Your task to perform on an android device: Do I have any events tomorrow? Image 0: 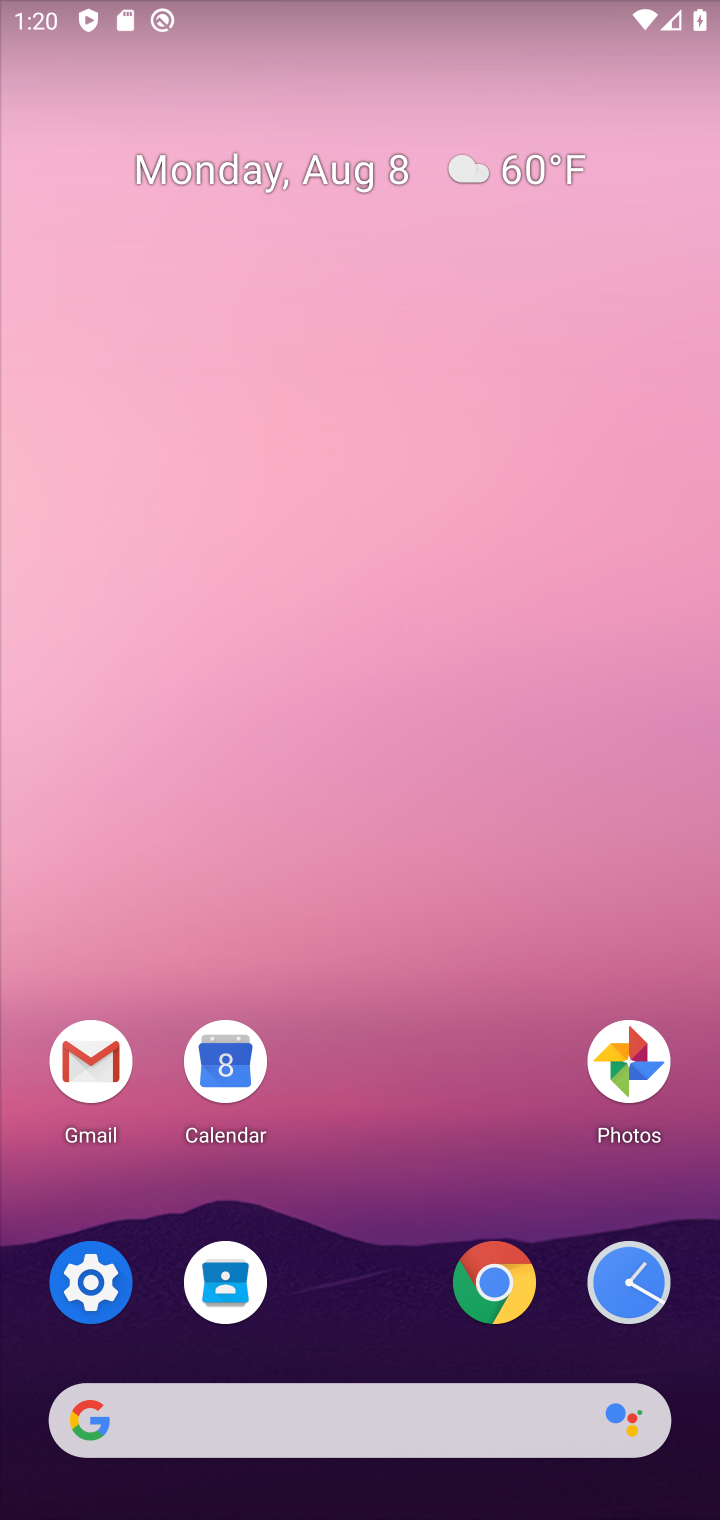
Step 0: drag from (367, 1241) to (319, 308)
Your task to perform on an android device: Do I have any events tomorrow? Image 1: 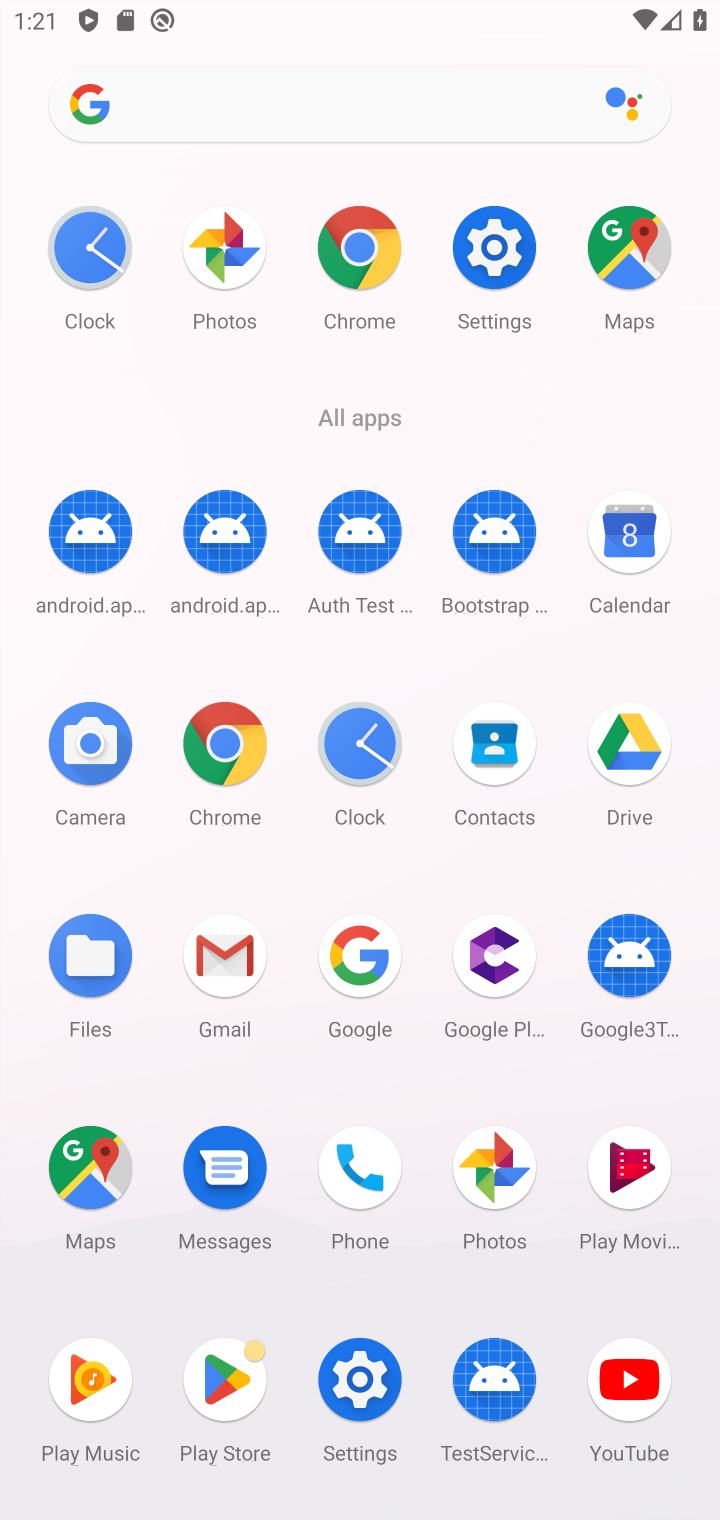
Step 1: click (638, 537)
Your task to perform on an android device: Do I have any events tomorrow? Image 2: 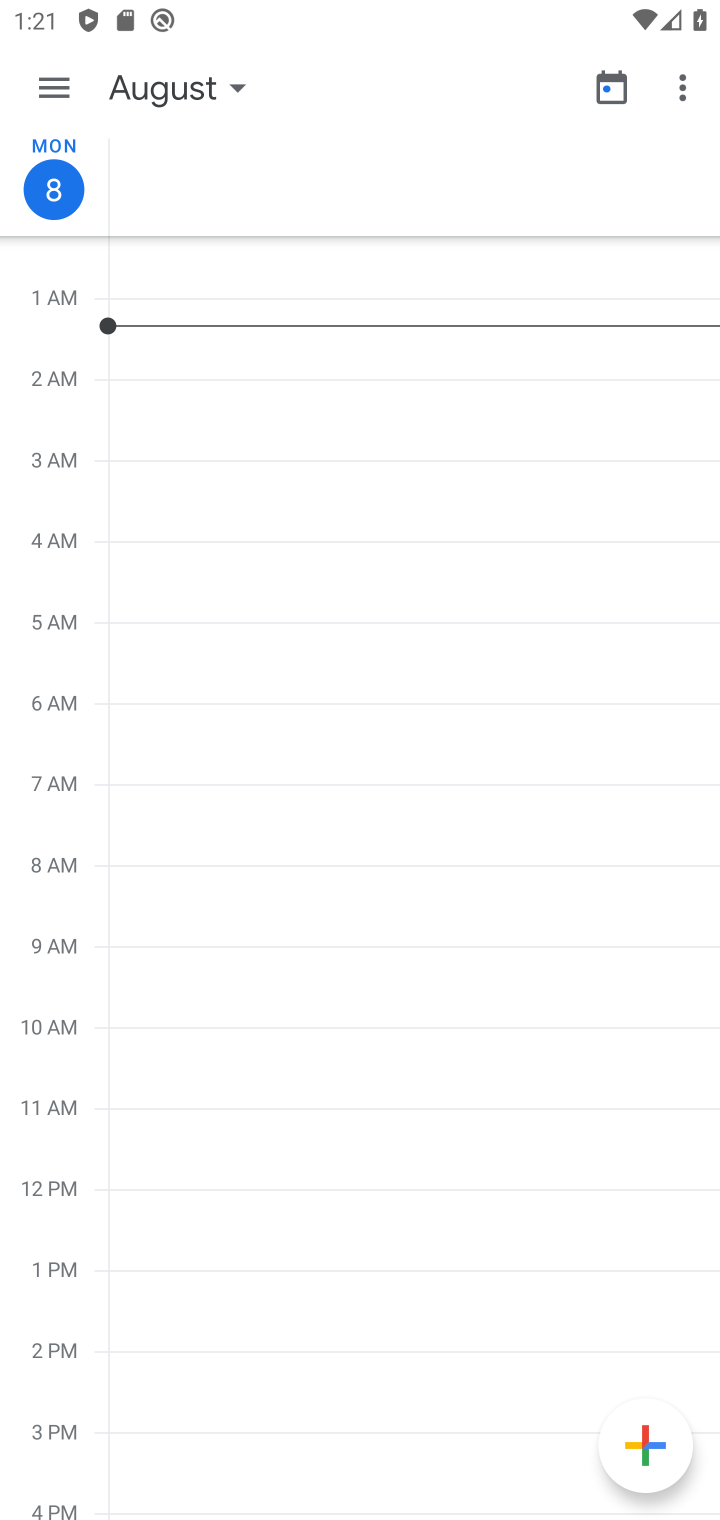
Step 2: click (218, 80)
Your task to perform on an android device: Do I have any events tomorrow? Image 3: 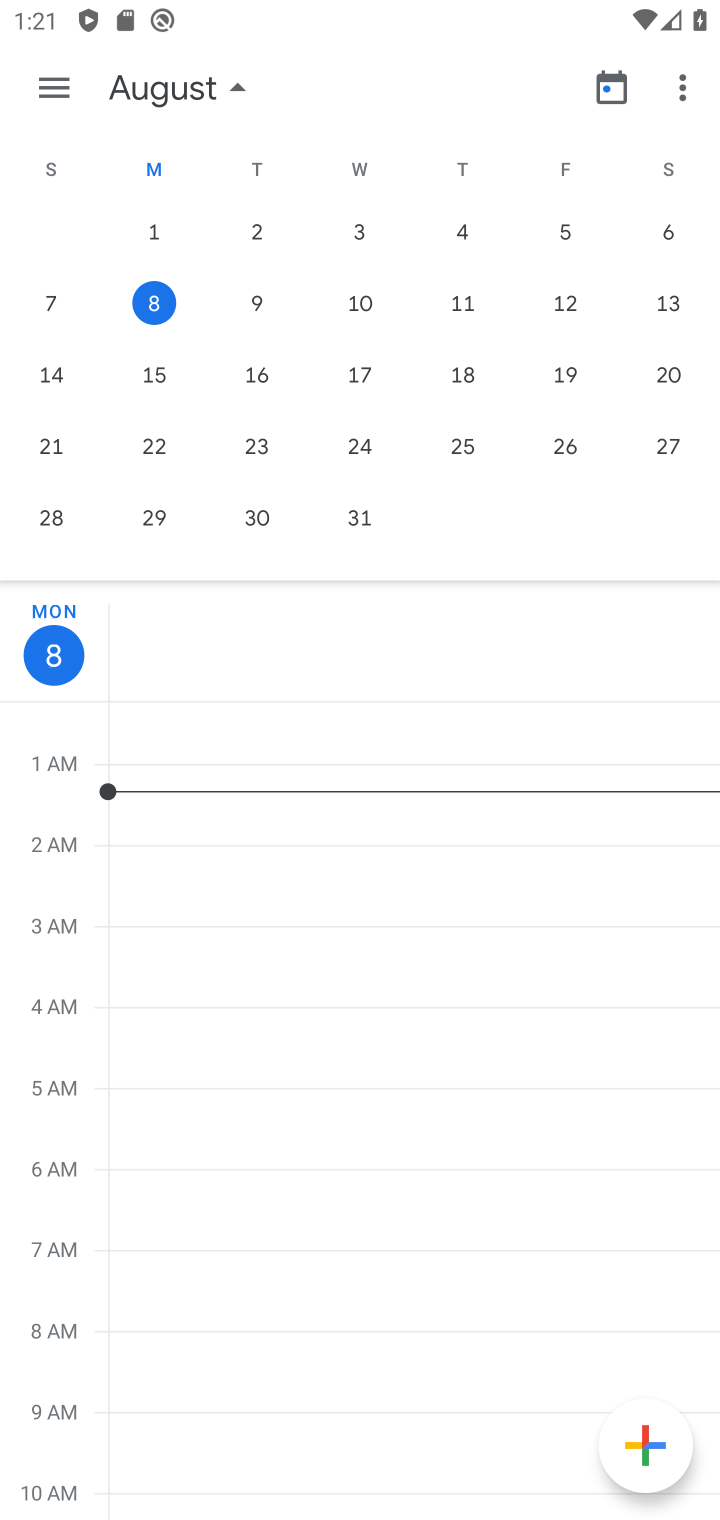
Step 3: click (246, 301)
Your task to perform on an android device: Do I have any events tomorrow? Image 4: 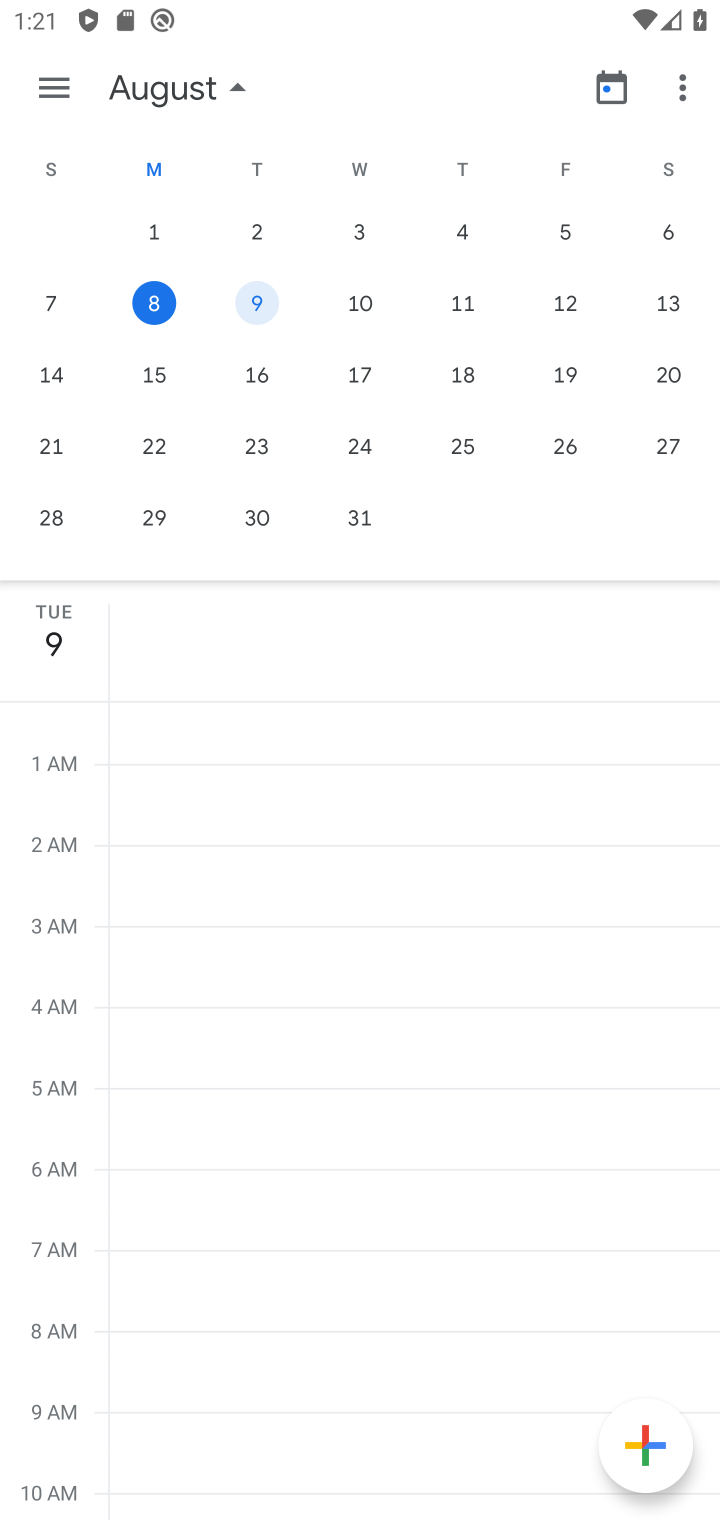
Step 4: task complete